Your task to perform on an android device: change the clock display to show seconds Image 0: 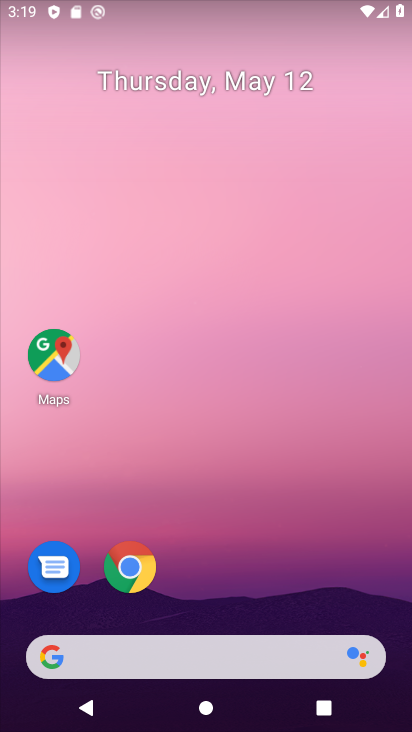
Step 0: drag from (229, 626) to (344, 69)
Your task to perform on an android device: change the clock display to show seconds Image 1: 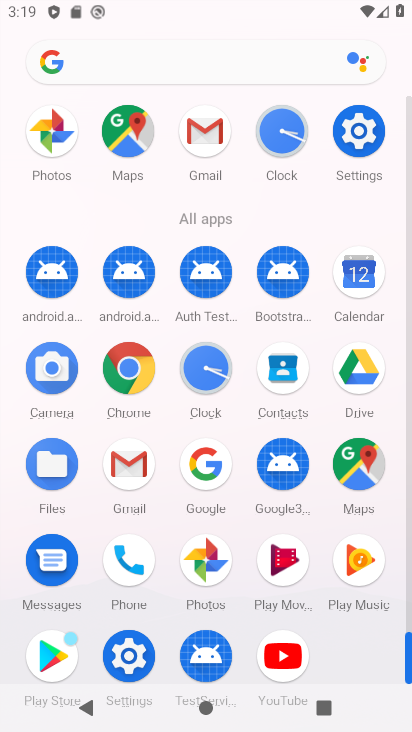
Step 1: click (189, 358)
Your task to perform on an android device: change the clock display to show seconds Image 2: 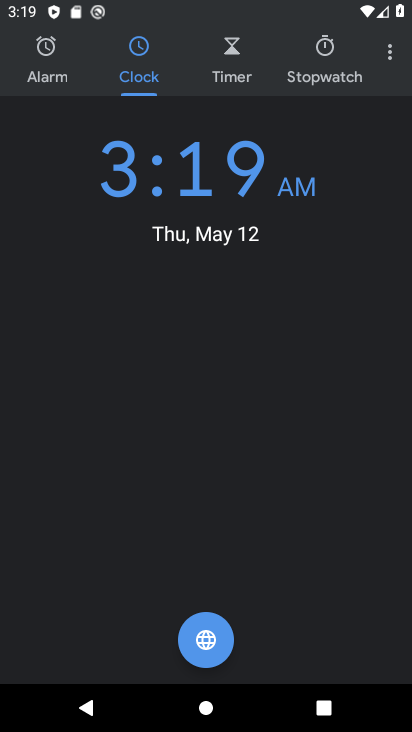
Step 2: click (386, 55)
Your task to perform on an android device: change the clock display to show seconds Image 3: 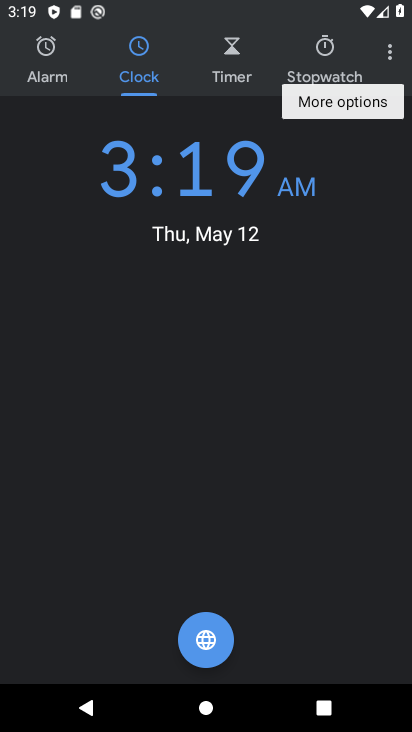
Step 3: click (387, 56)
Your task to perform on an android device: change the clock display to show seconds Image 4: 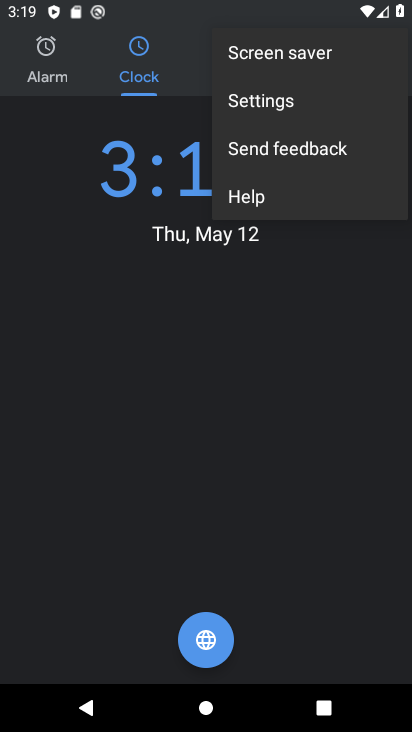
Step 4: click (315, 104)
Your task to perform on an android device: change the clock display to show seconds Image 5: 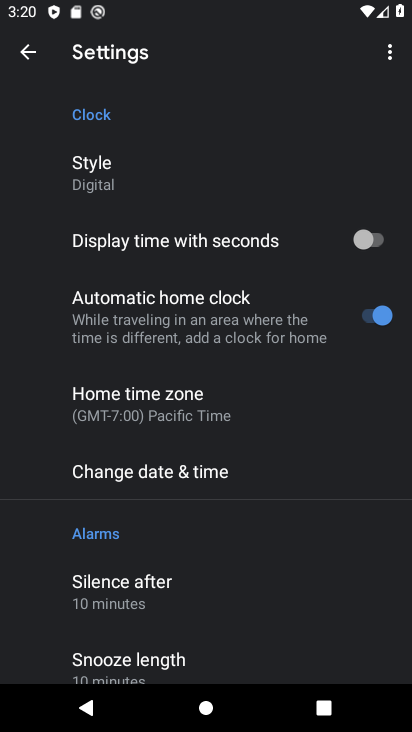
Step 5: click (385, 240)
Your task to perform on an android device: change the clock display to show seconds Image 6: 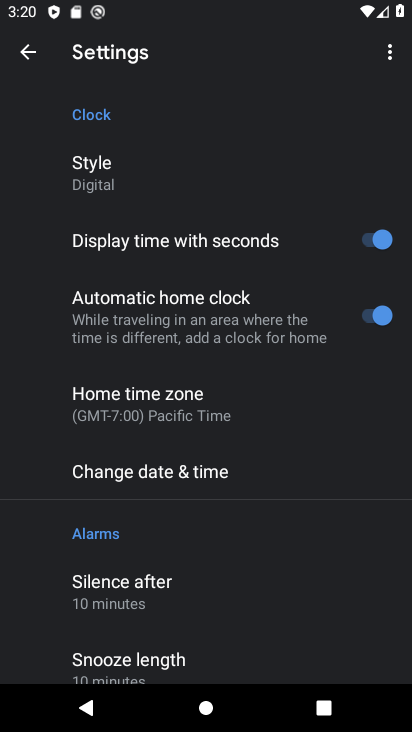
Step 6: task complete